Your task to perform on an android device: stop showing notifications on the lock screen Image 0: 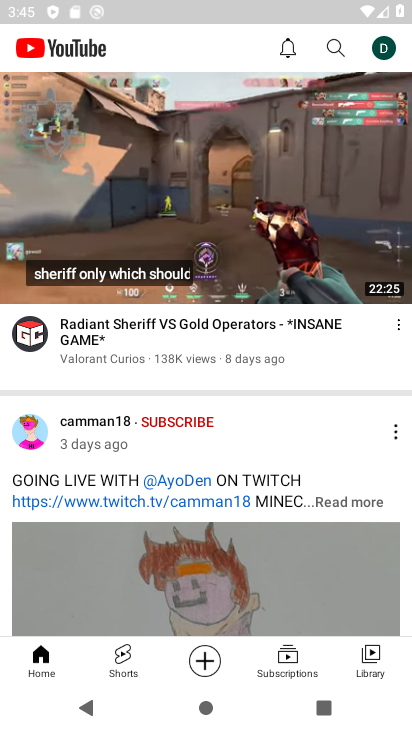
Step 0: press home button
Your task to perform on an android device: stop showing notifications on the lock screen Image 1: 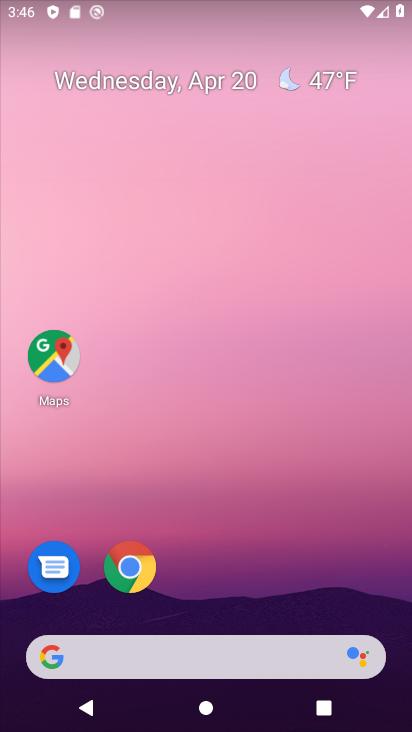
Step 1: drag from (256, 613) to (184, 128)
Your task to perform on an android device: stop showing notifications on the lock screen Image 2: 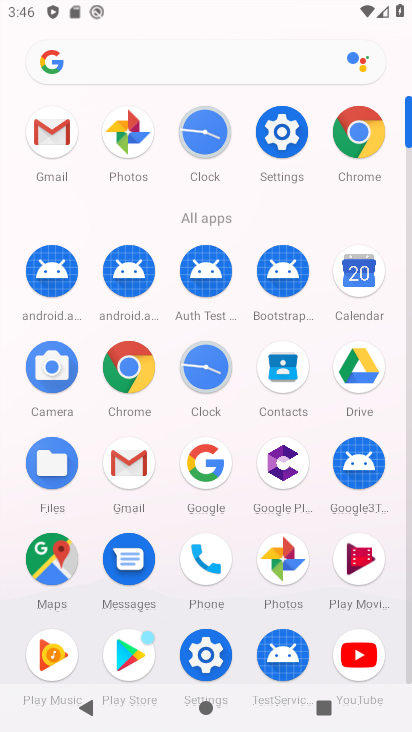
Step 2: click (195, 640)
Your task to perform on an android device: stop showing notifications on the lock screen Image 3: 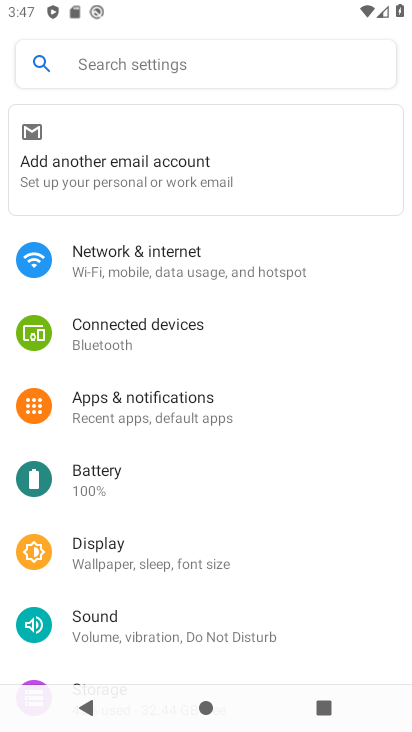
Step 3: click (167, 398)
Your task to perform on an android device: stop showing notifications on the lock screen Image 4: 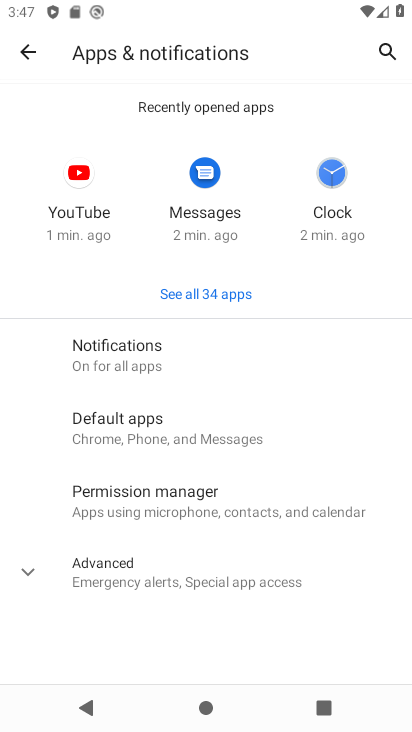
Step 4: click (170, 364)
Your task to perform on an android device: stop showing notifications on the lock screen Image 5: 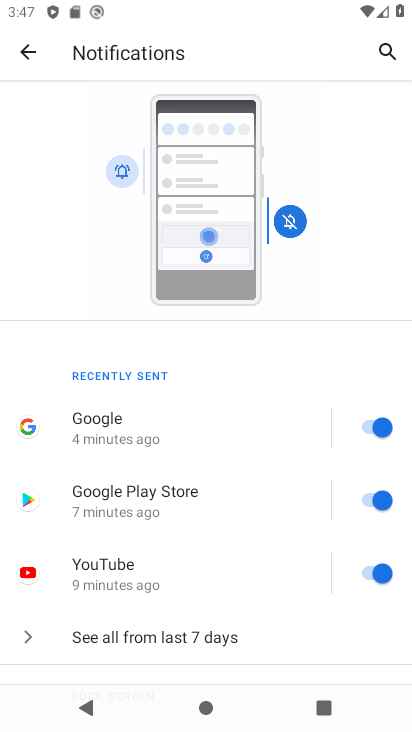
Step 5: drag from (192, 613) to (182, 172)
Your task to perform on an android device: stop showing notifications on the lock screen Image 6: 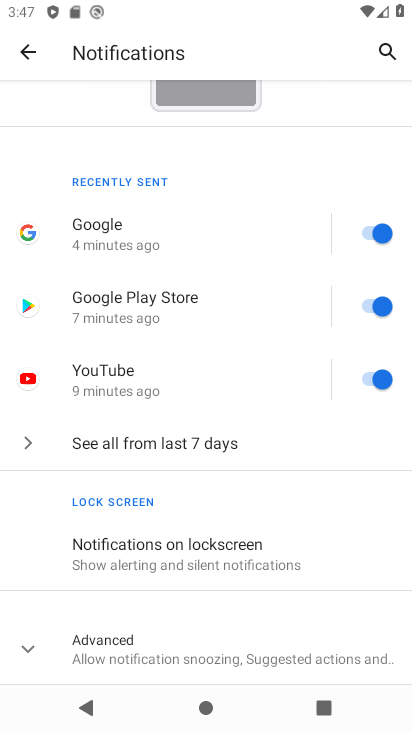
Step 6: click (169, 549)
Your task to perform on an android device: stop showing notifications on the lock screen Image 7: 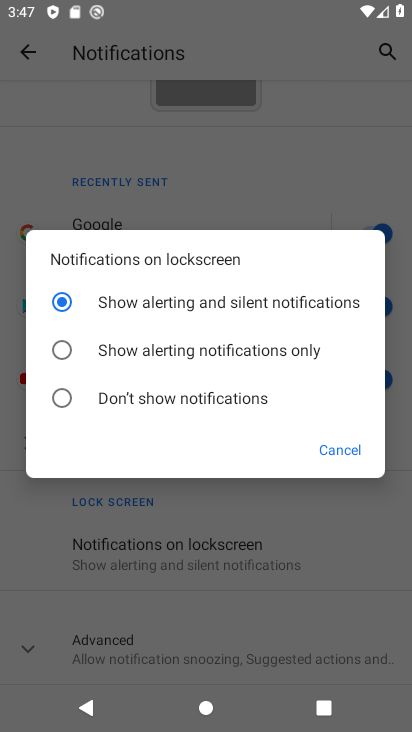
Step 7: click (196, 405)
Your task to perform on an android device: stop showing notifications on the lock screen Image 8: 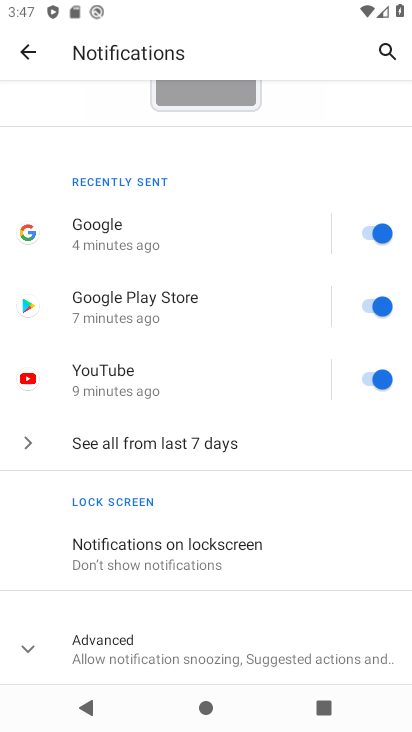
Step 8: task complete